Your task to perform on an android device: Clear the cart on newegg. Add logitech g pro to the cart on newegg Image 0: 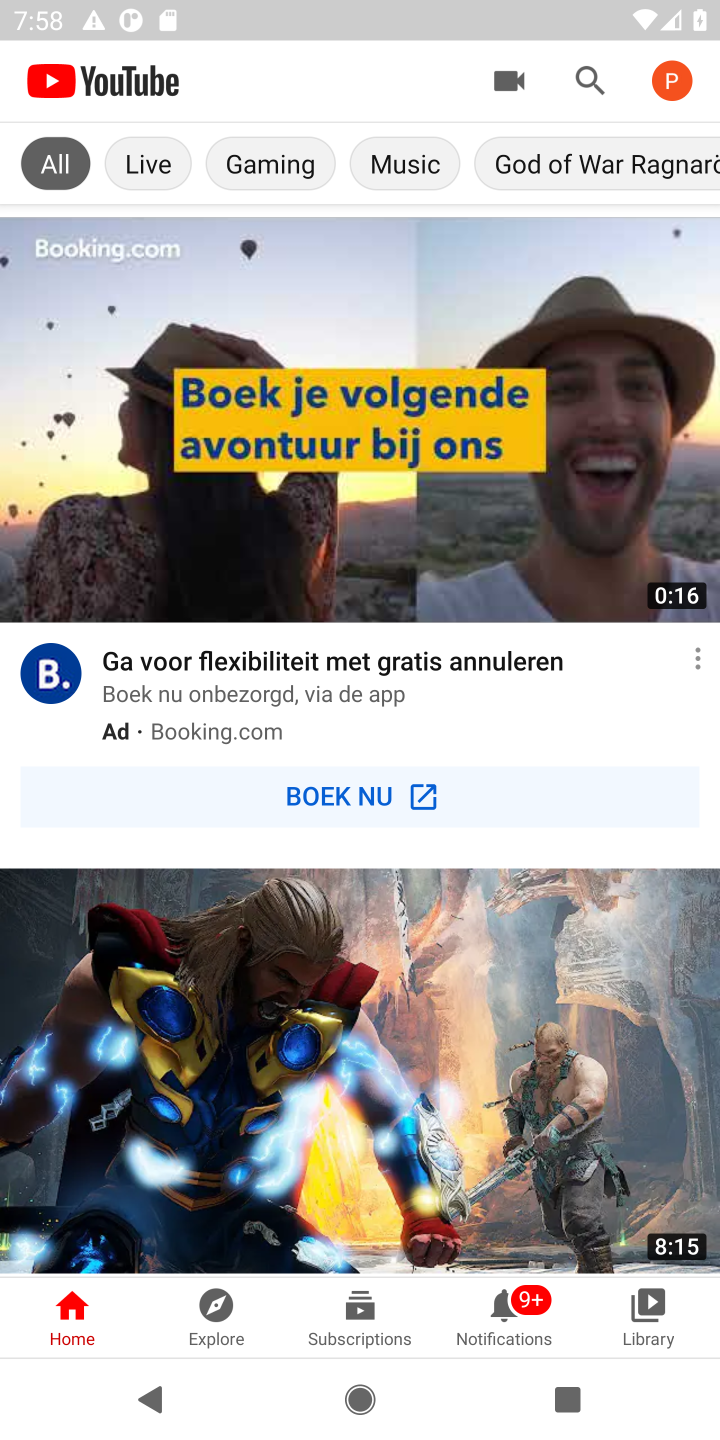
Step 0: press home button
Your task to perform on an android device: Clear the cart on newegg. Add logitech g pro to the cart on newegg Image 1: 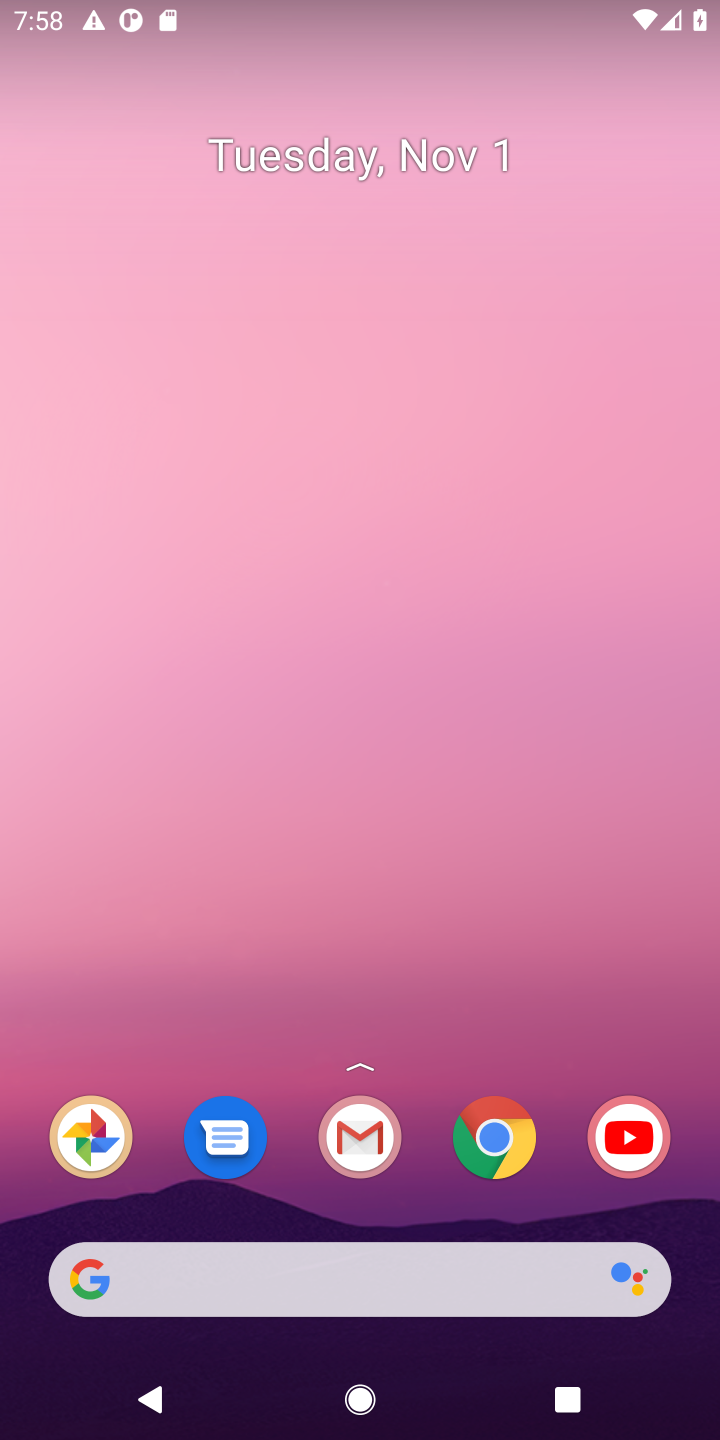
Step 1: click (505, 1147)
Your task to perform on an android device: Clear the cart on newegg. Add logitech g pro to the cart on newegg Image 2: 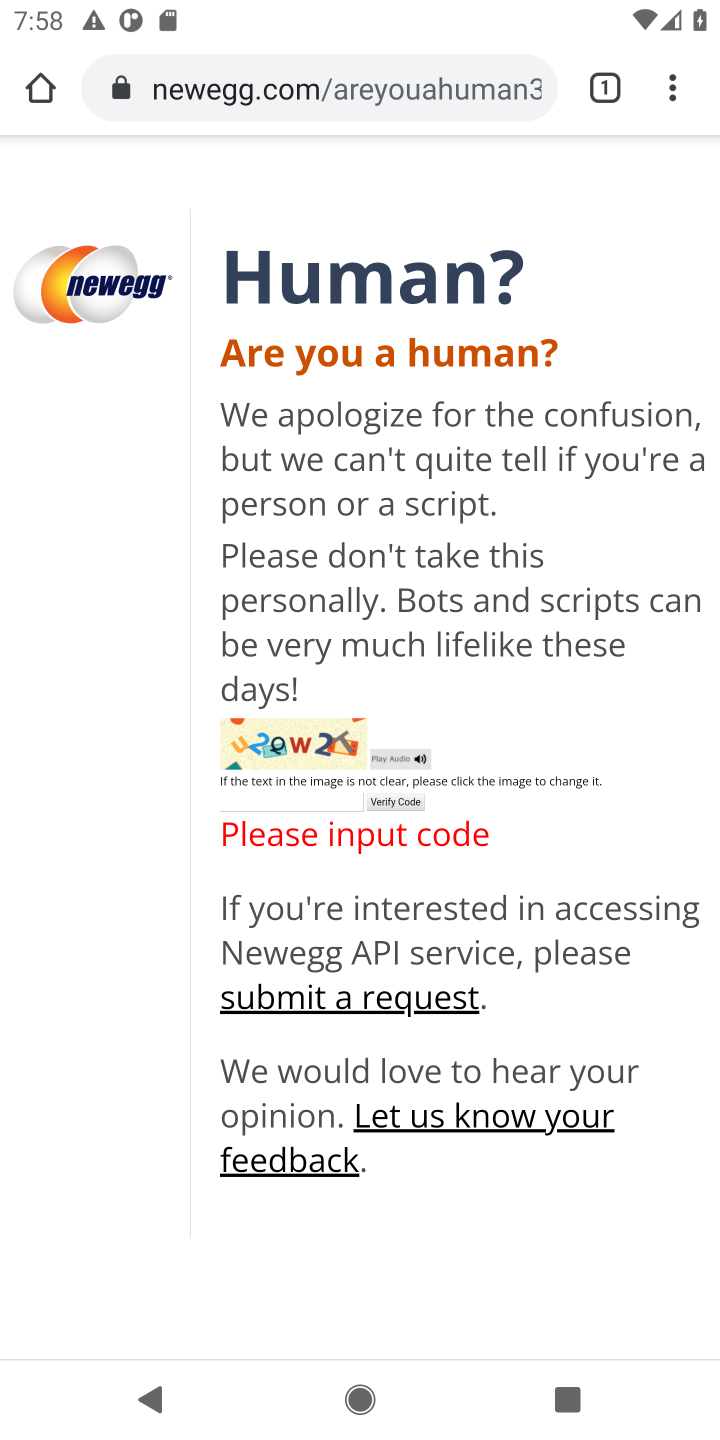
Step 2: click (404, 99)
Your task to perform on an android device: Clear the cart on newegg. Add logitech g pro to the cart on newegg Image 3: 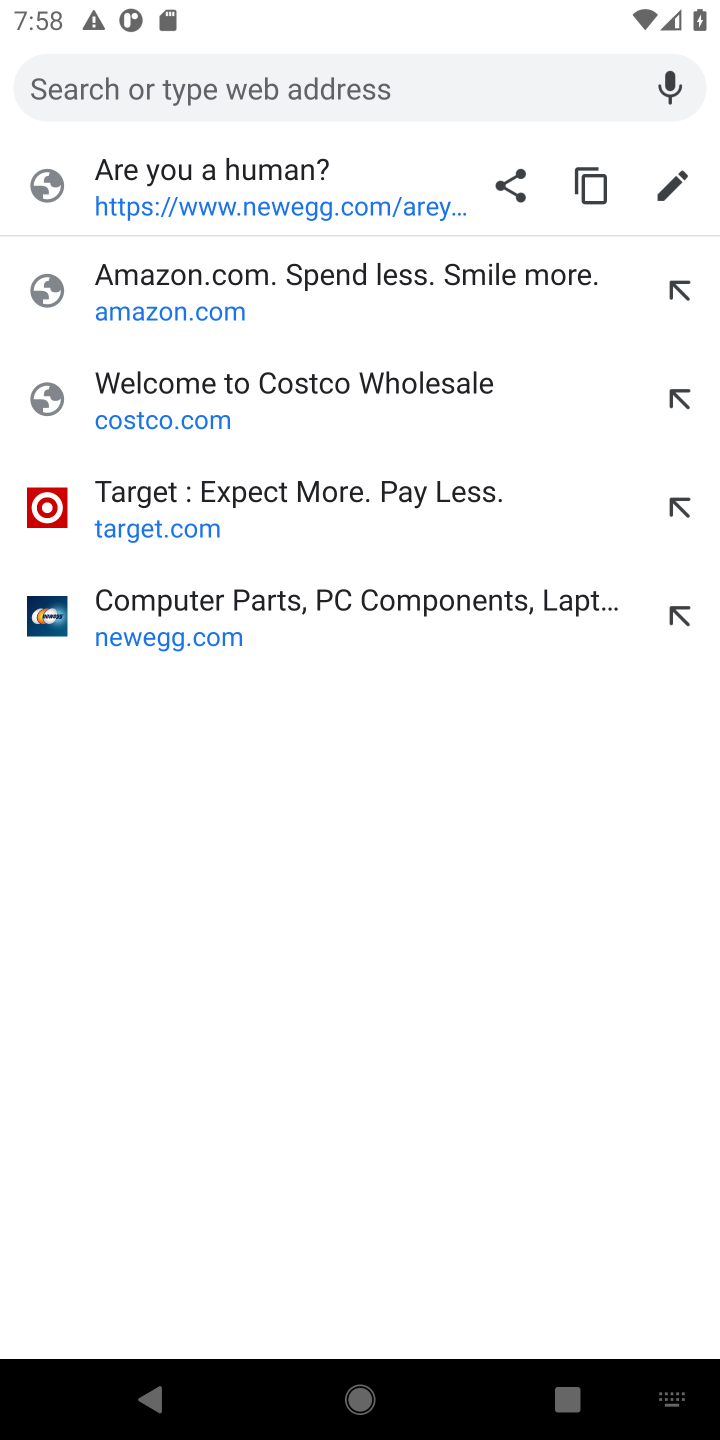
Step 3: type "newegg"
Your task to perform on an android device: Clear the cart on newegg. Add logitech g pro to the cart on newegg Image 4: 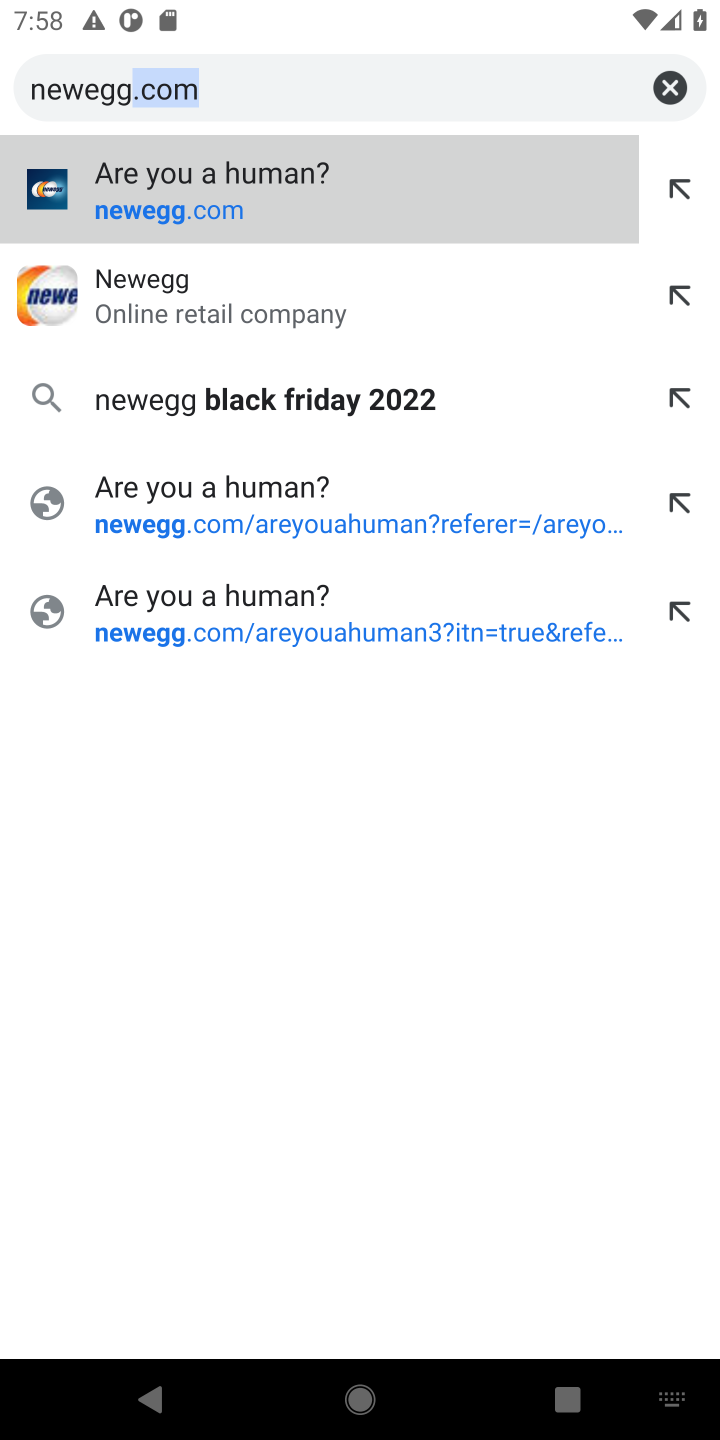
Step 4: press enter
Your task to perform on an android device: Clear the cart on newegg. Add logitech g pro to the cart on newegg Image 5: 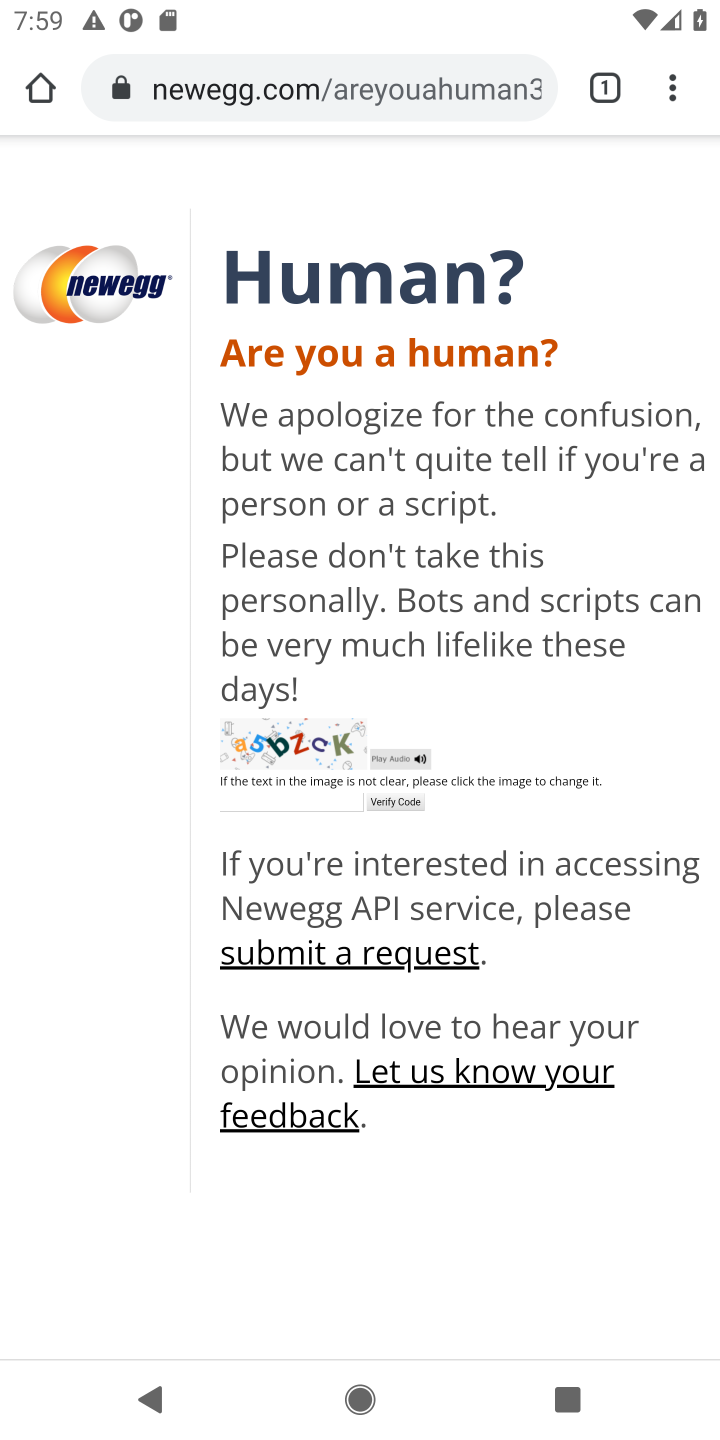
Step 5: task complete